Your task to perform on an android device: Find coffee shops on Maps Image 0: 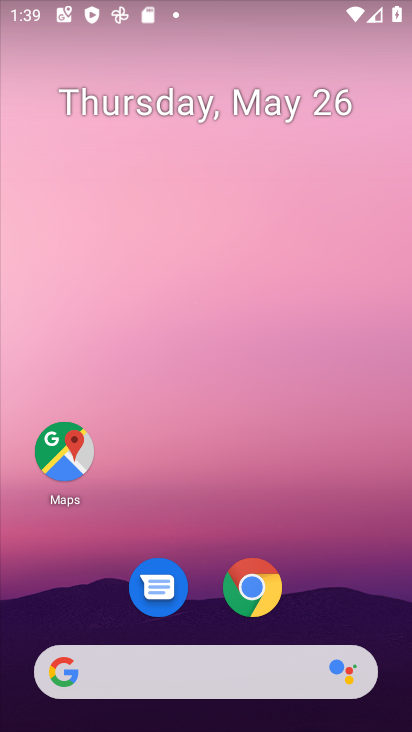
Step 0: drag from (371, 610) to (365, 99)
Your task to perform on an android device: Find coffee shops on Maps Image 1: 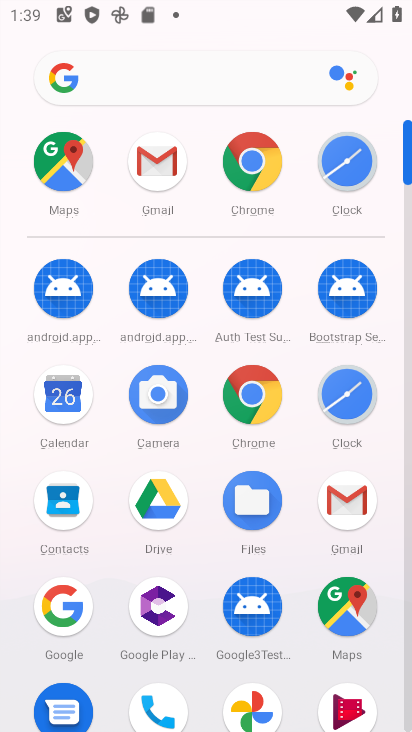
Step 1: drag from (376, 645) to (380, 351)
Your task to perform on an android device: Find coffee shops on Maps Image 2: 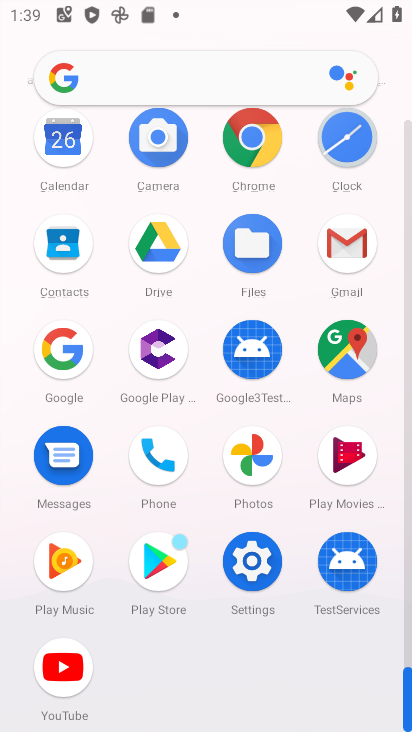
Step 2: click (354, 346)
Your task to perform on an android device: Find coffee shops on Maps Image 3: 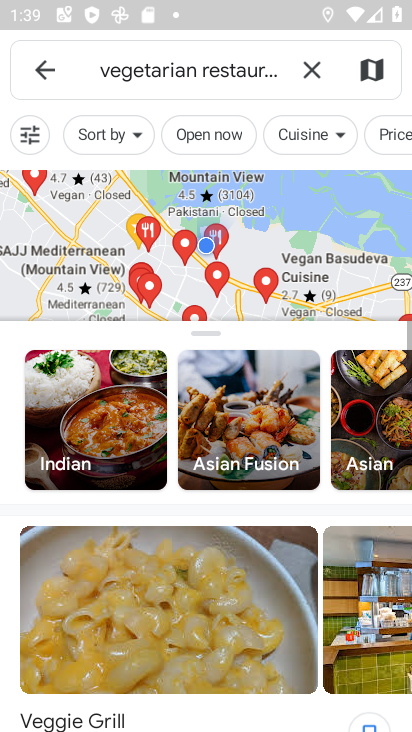
Step 3: click (312, 77)
Your task to perform on an android device: Find coffee shops on Maps Image 4: 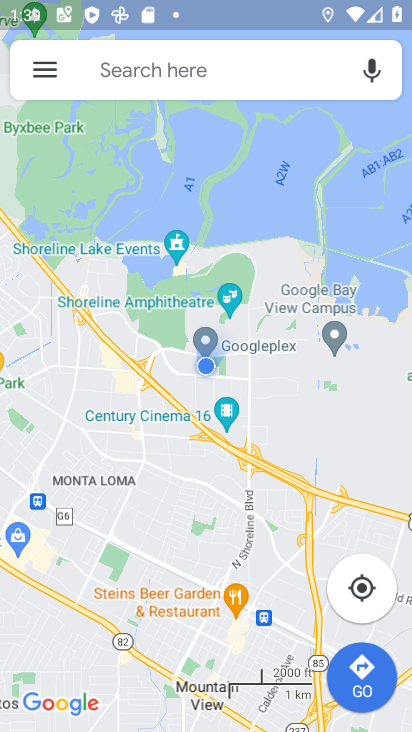
Step 4: click (210, 69)
Your task to perform on an android device: Find coffee shops on Maps Image 5: 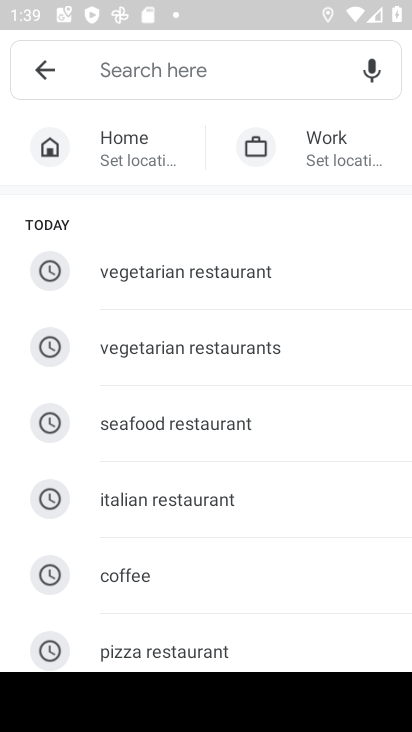
Step 5: type "coffee"
Your task to perform on an android device: Find coffee shops on Maps Image 6: 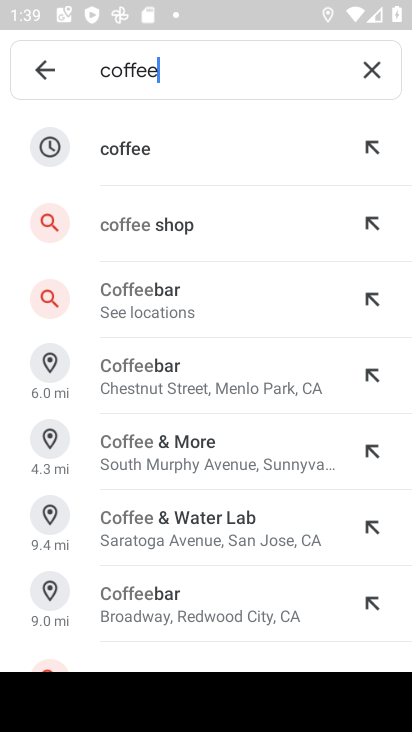
Step 6: click (179, 150)
Your task to perform on an android device: Find coffee shops on Maps Image 7: 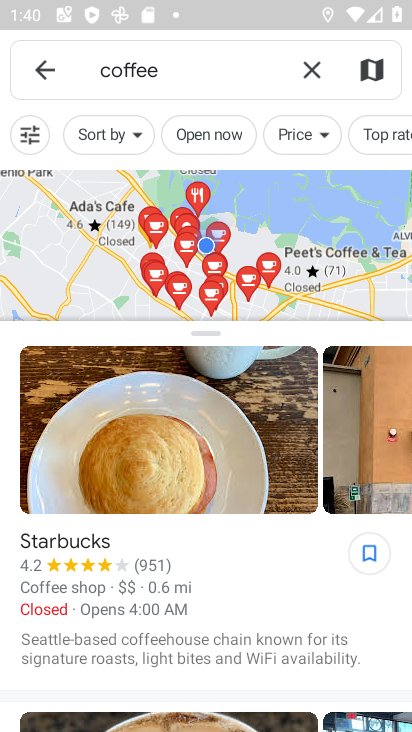
Step 7: task complete